Your task to perform on an android device: Go to Google maps Image 0: 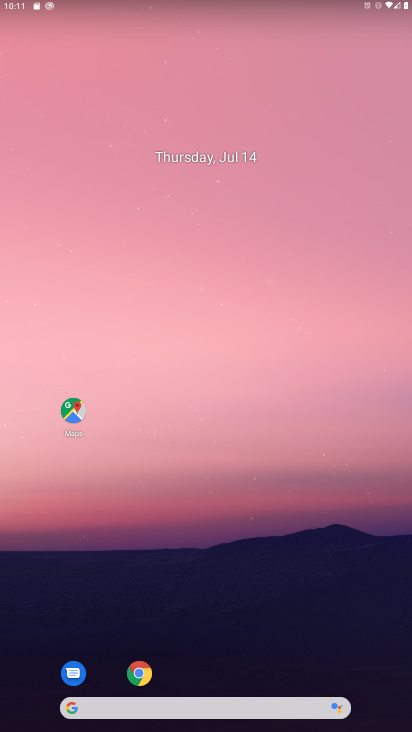
Step 0: click (69, 408)
Your task to perform on an android device: Go to Google maps Image 1: 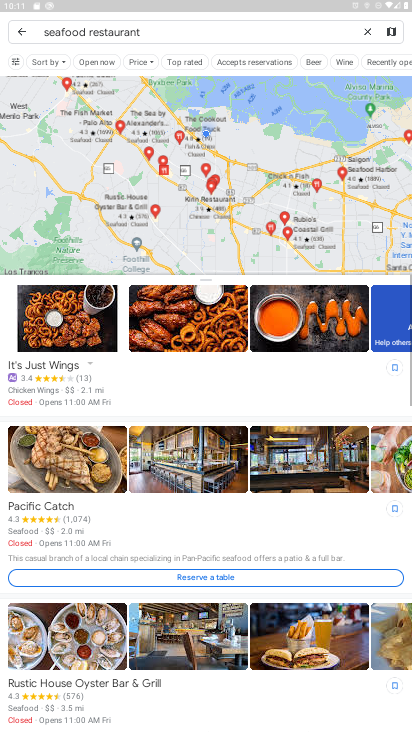
Step 1: click (367, 34)
Your task to perform on an android device: Go to Google maps Image 2: 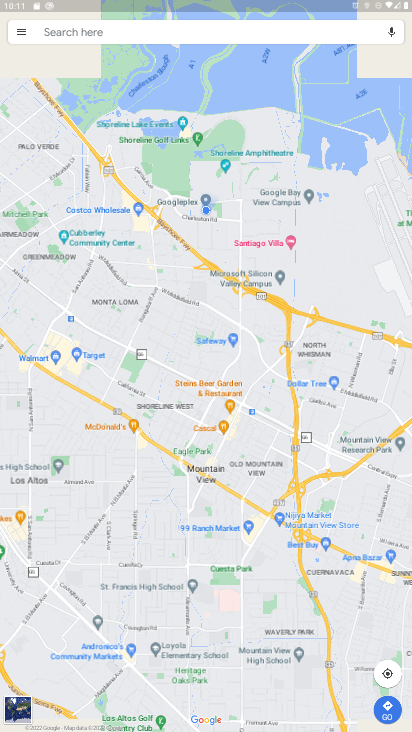
Step 2: task complete